Your task to perform on an android device: see creations saved in the google photos Image 0: 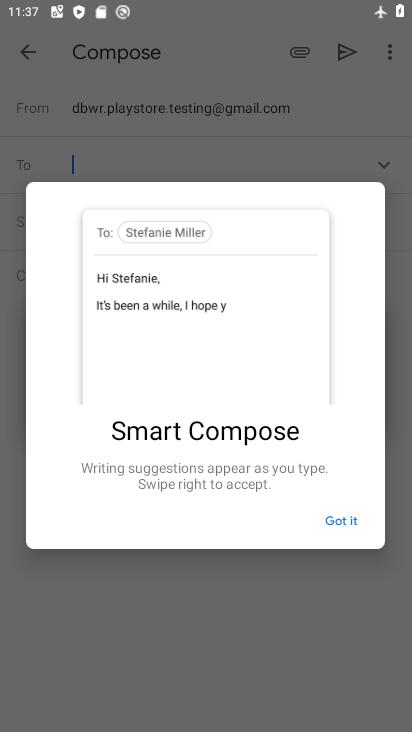
Step 0: press home button
Your task to perform on an android device: see creations saved in the google photos Image 1: 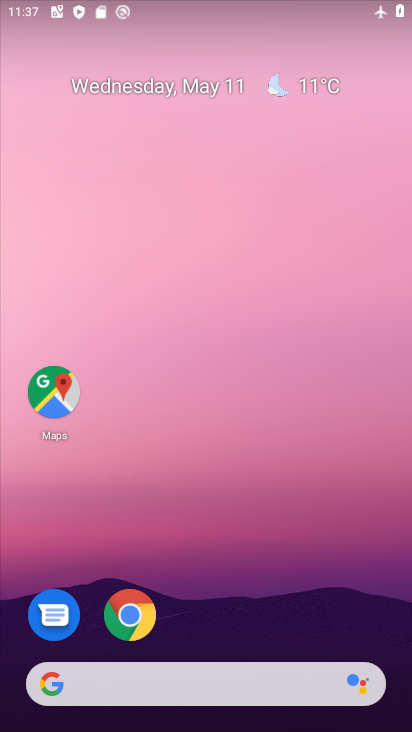
Step 1: drag from (258, 583) to (281, 141)
Your task to perform on an android device: see creations saved in the google photos Image 2: 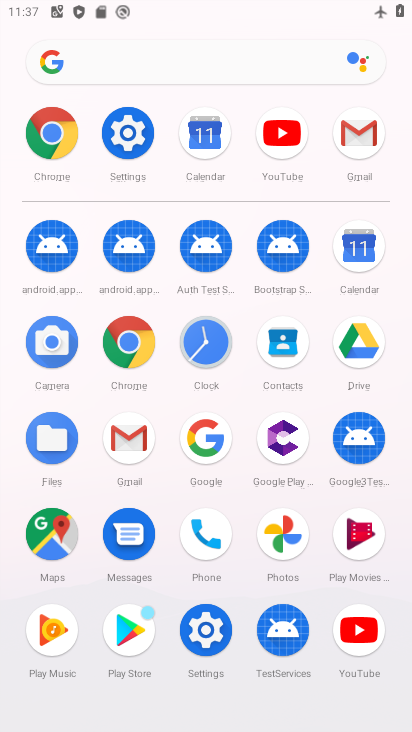
Step 2: click (275, 540)
Your task to perform on an android device: see creations saved in the google photos Image 3: 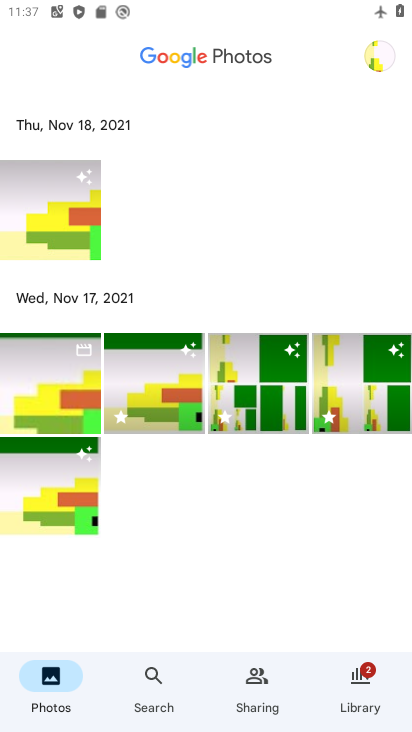
Step 3: click (184, 667)
Your task to perform on an android device: see creations saved in the google photos Image 4: 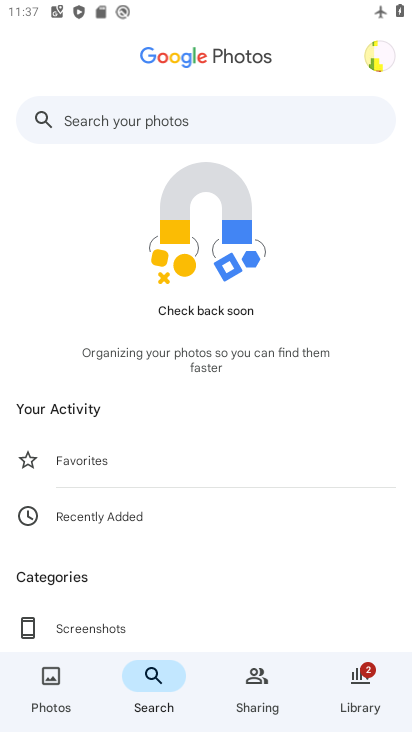
Step 4: click (271, 672)
Your task to perform on an android device: see creations saved in the google photos Image 5: 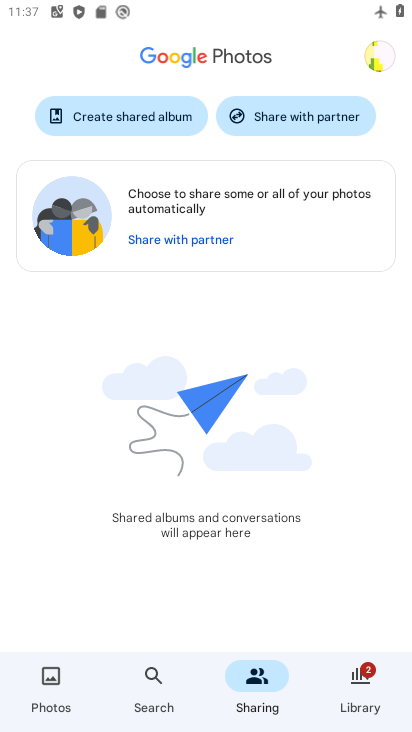
Step 5: click (386, 680)
Your task to perform on an android device: see creations saved in the google photos Image 6: 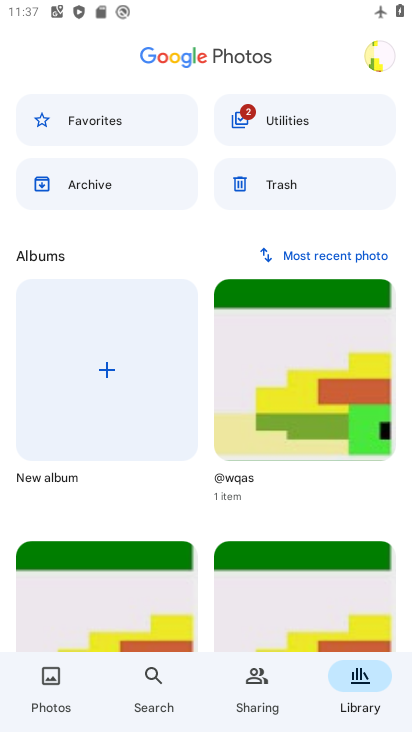
Step 6: task complete